Your task to perform on an android device: Open Youtube and go to the subscriptions tab Image 0: 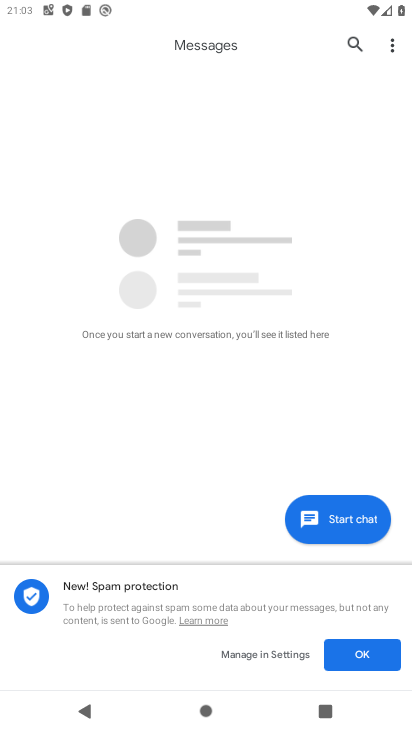
Step 0: press home button
Your task to perform on an android device: Open Youtube and go to the subscriptions tab Image 1: 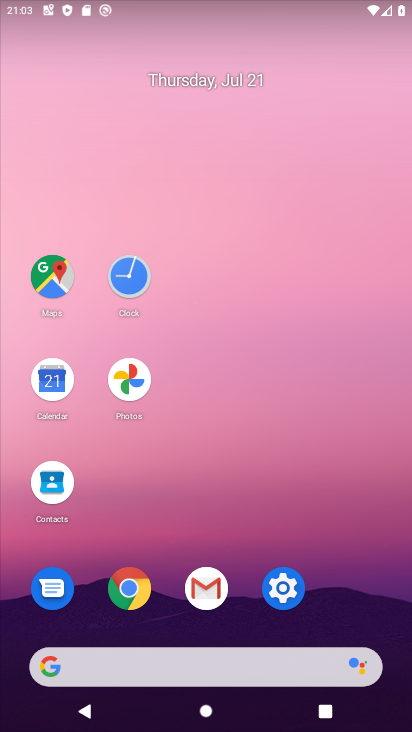
Step 1: drag from (275, 492) to (235, 143)
Your task to perform on an android device: Open Youtube and go to the subscriptions tab Image 2: 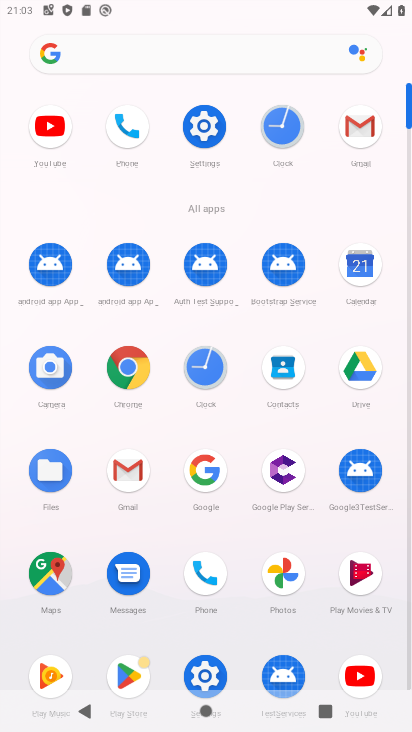
Step 2: click (43, 122)
Your task to perform on an android device: Open Youtube and go to the subscriptions tab Image 3: 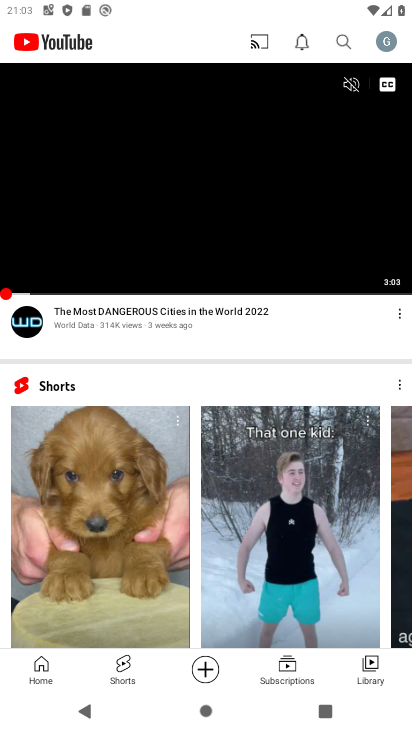
Step 3: click (282, 670)
Your task to perform on an android device: Open Youtube and go to the subscriptions tab Image 4: 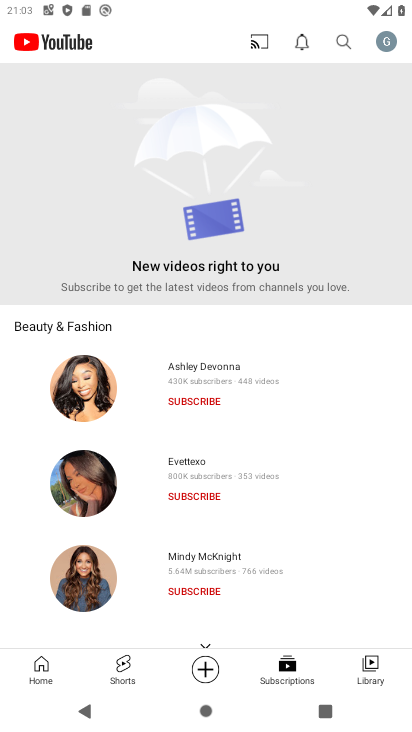
Step 4: task complete